Your task to perform on an android device: Open my contact list Image 0: 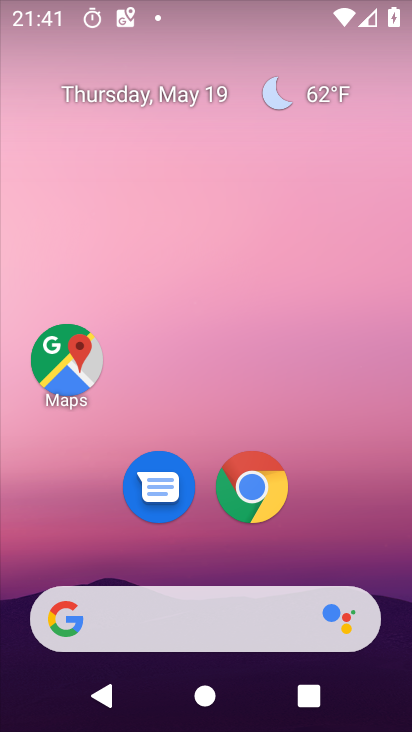
Step 0: drag from (324, 553) to (260, 78)
Your task to perform on an android device: Open my contact list Image 1: 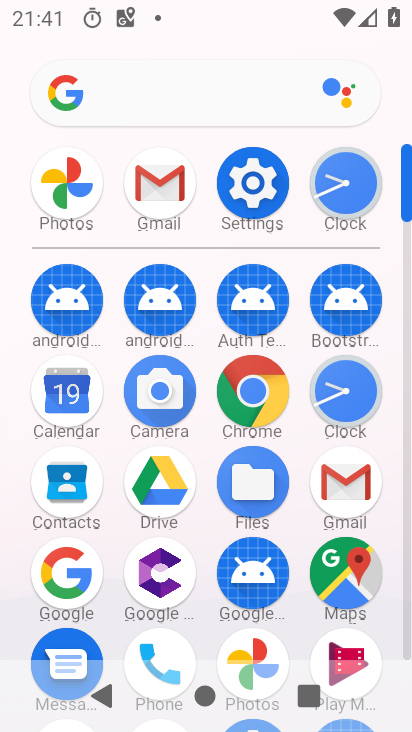
Step 1: drag from (294, 581) to (304, 191)
Your task to perform on an android device: Open my contact list Image 2: 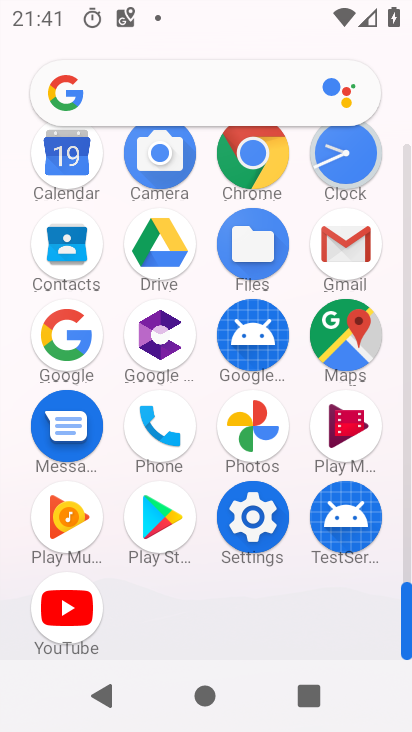
Step 2: click (66, 253)
Your task to perform on an android device: Open my contact list Image 3: 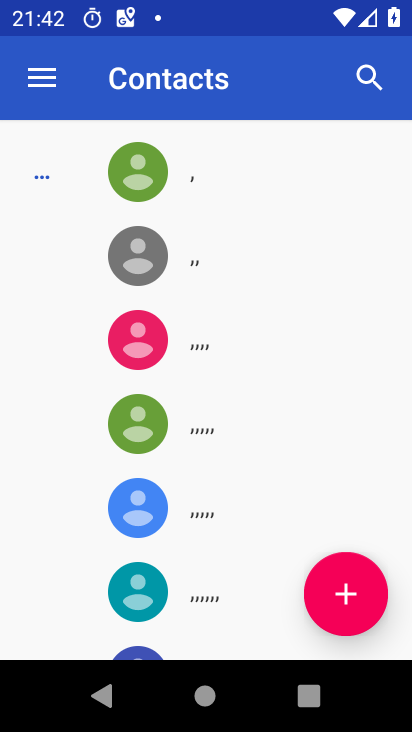
Step 3: task complete